Your task to perform on an android device: Open location settings Image 0: 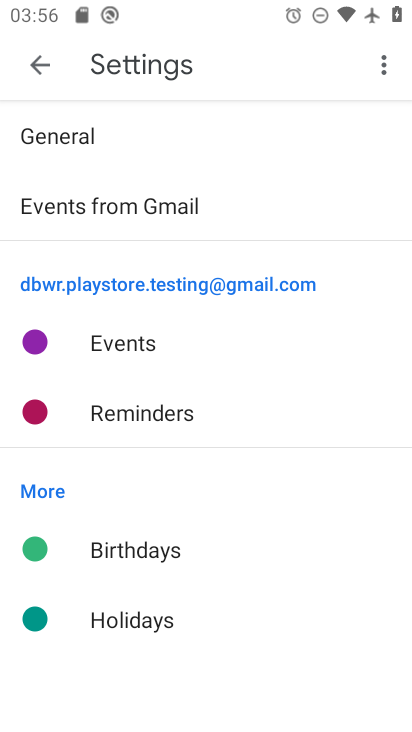
Step 0: press home button
Your task to perform on an android device: Open location settings Image 1: 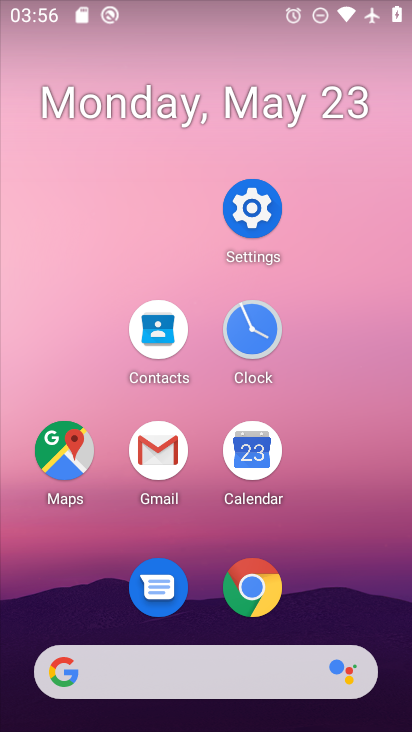
Step 1: click (255, 214)
Your task to perform on an android device: Open location settings Image 2: 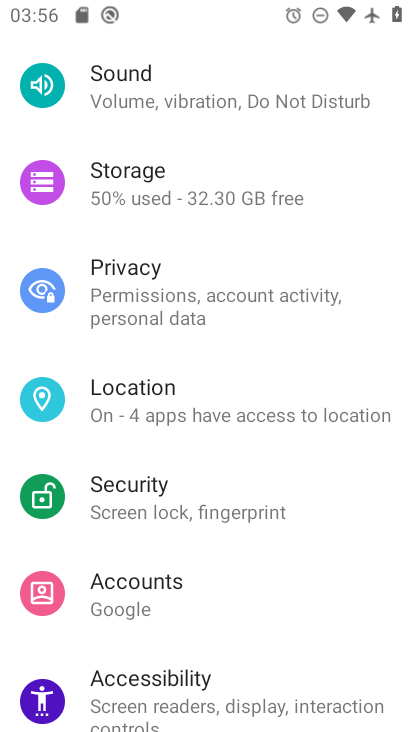
Step 2: click (228, 422)
Your task to perform on an android device: Open location settings Image 3: 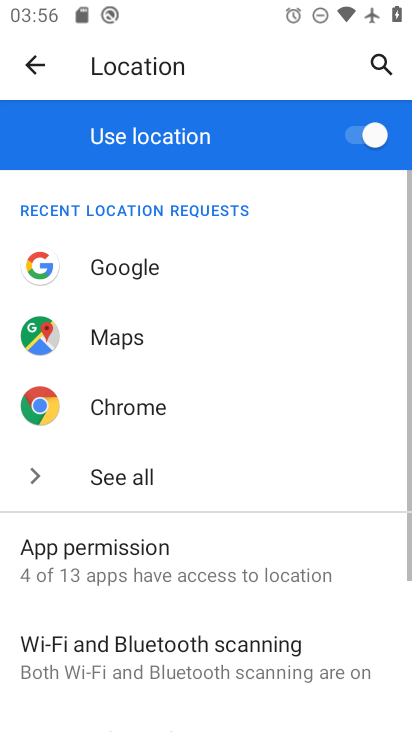
Step 3: task complete